Your task to perform on an android device: Search for vegetarian restaurants on Maps Image 0: 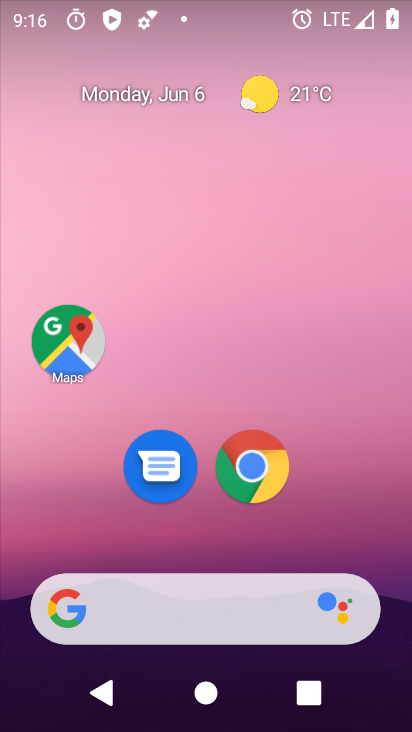
Step 0: click (260, 70)
Your task to perform on an android device: Search for vegetarian restaurants on Maps Image 1: 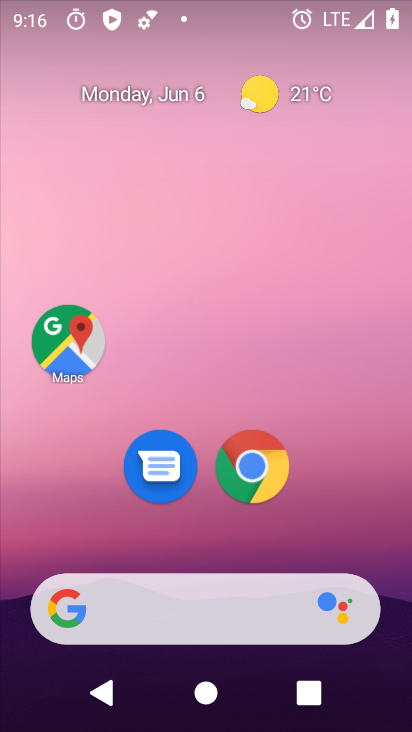
Step 1: drag from (209, 543) to (252, 11)
Your task to perform on an android device: Search for vegetarian restaurants on Maps Image 2: 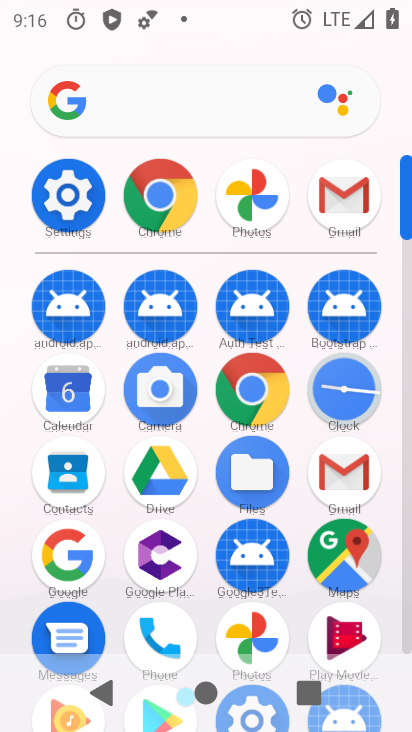
Step 2: click (343, 535)
Your task to perform on an android device: Search for vegetarian restaurants on Maps Image 3: 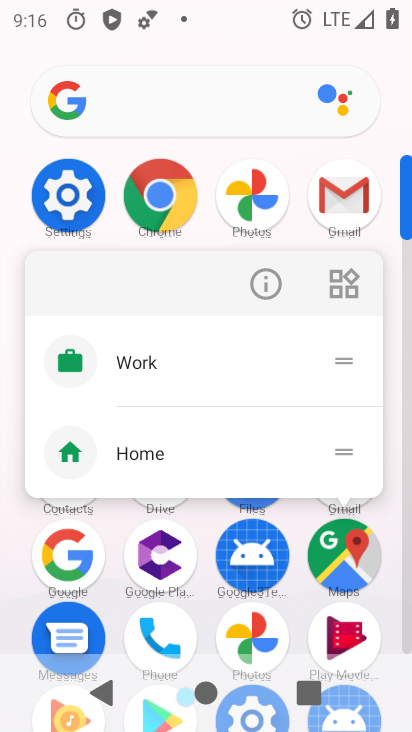
Step 3: click (255, 273)
Your task to perform on an android device: Search for vegetarian restaurants on Maps Image 4: 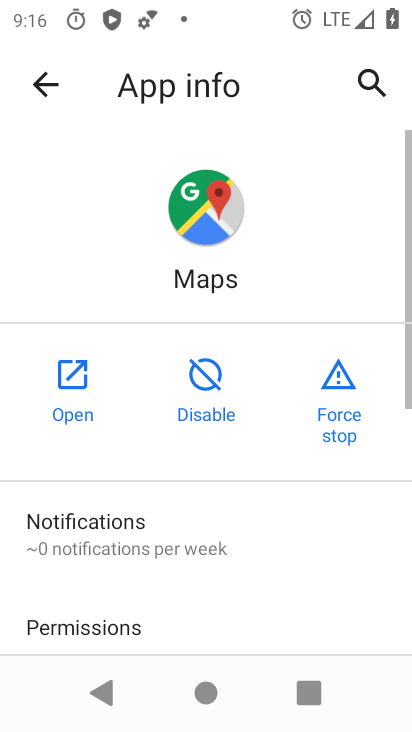
Step 4: drag from (162, 559) to (197, 89)
Your task to perform on an android device: Search for vegetarian restaurants on Maps Image 5: 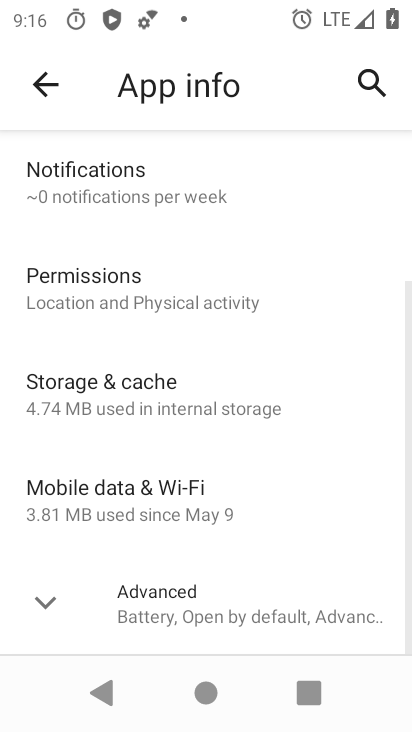
Step 5: drag from (195, 259) to (267, 721)
Your task to perform on an android device: Search for vegetarian restaurants on Maps Image 6: 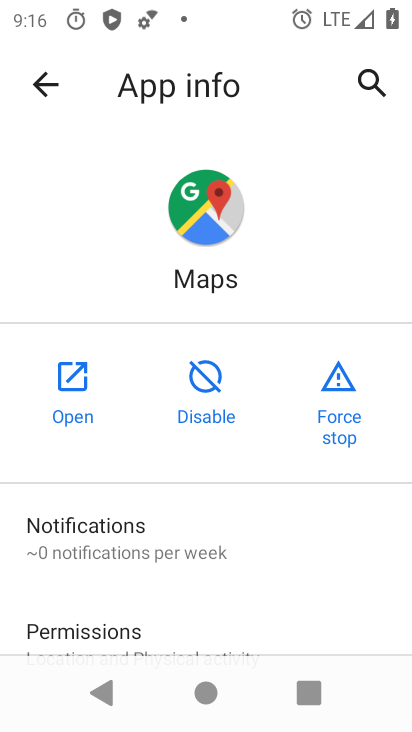
Step 6: click (78, 400)
Your task to perform on an android device: Search for vegetarian restaurants on Maps Image 7: 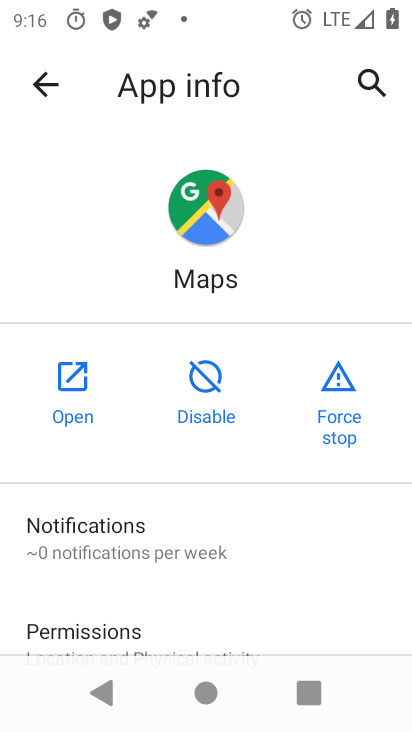
Step 7: click (77, 399)
Your task to perform on an android device: Search for vegetarian restaurants on Maps Image 8: 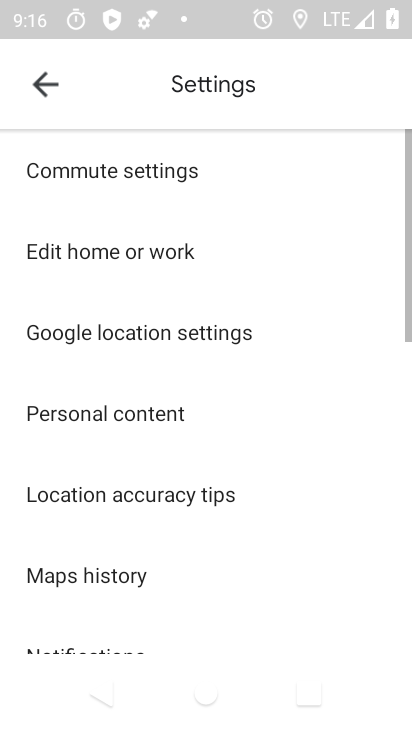
Step 8: drag from (204, 551) to (251, 151)
Your task to perform on an android device: Search for vegetarian restaurants on Maps Image 9: 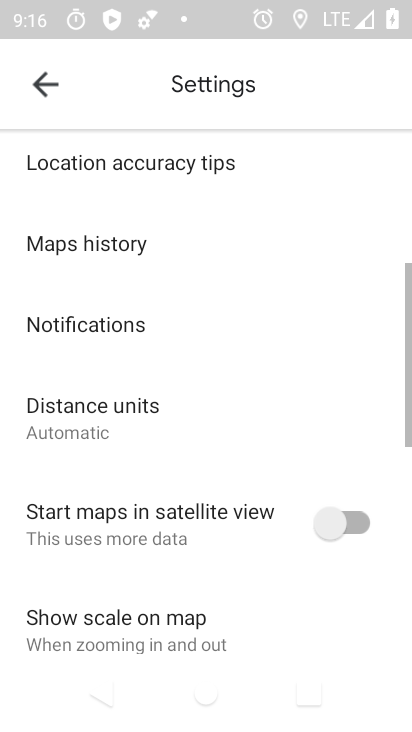
Step 9: drag from (242, 210) to (392, 731)
Your task to perform on an android device: Search for vegetarian restaurants on Maps Image 10: 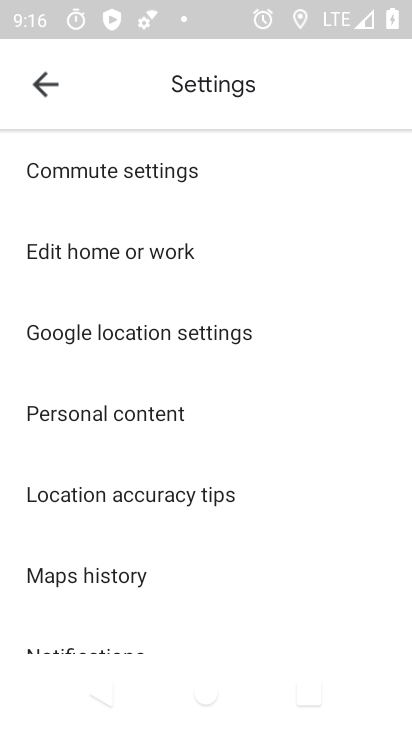
Step 10: drag from (273, 548) to (286, 190)
Your task to perform on an android device: Search for vegetarian restaurants on Maps Image 11: 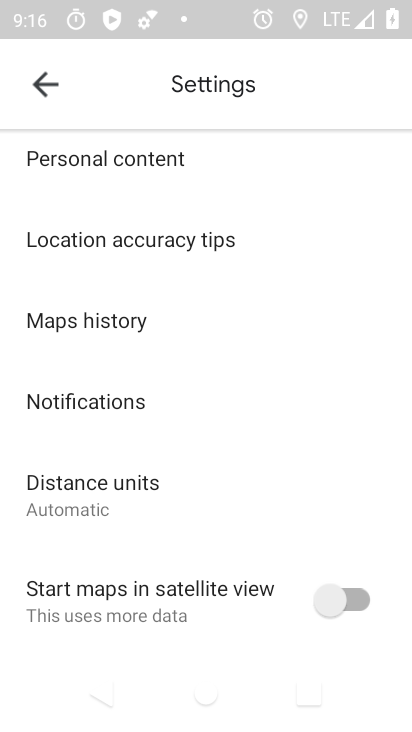
Step 11: click (42, 73)
Your task to perform on an android device: Search for vegetarian restaurants on Maps Image 12: 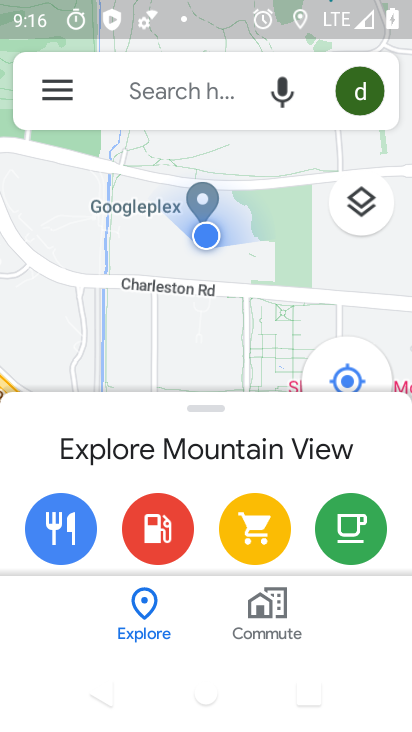
Step 12: click (118, 60)
Your task to perform on an android device: Search for vegetarian restaurants on Maps Image 13: 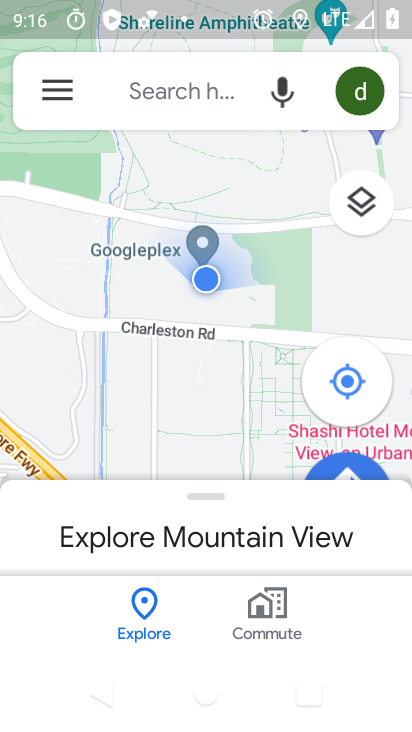
Step 13: click (132, 67)
Your task to perform on an android device: Search for vegetarian restaurants on Maps Image 14: 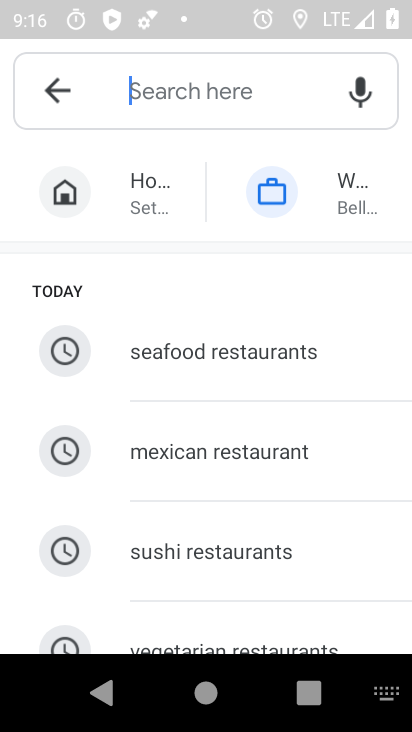
Step 14: drag from (216, 545) to (261, 69)
Your task to perform on an android device: Search for vegetarian restaurants on Maps Image 15: 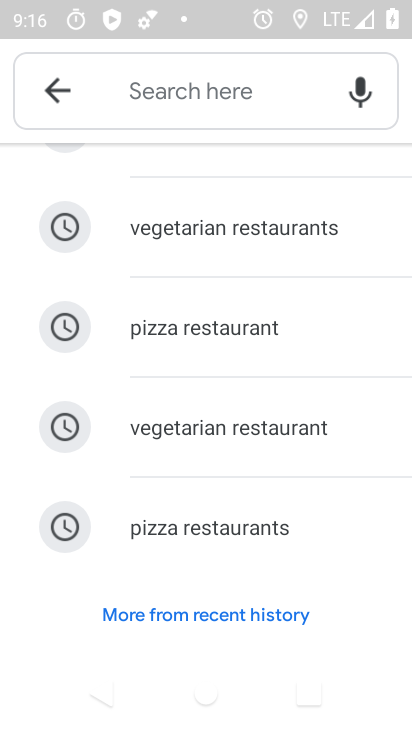
Step 15: click (181, 440)
Your task to perform on an android device: Search for vegetarian restaurants on Maps Image 16: 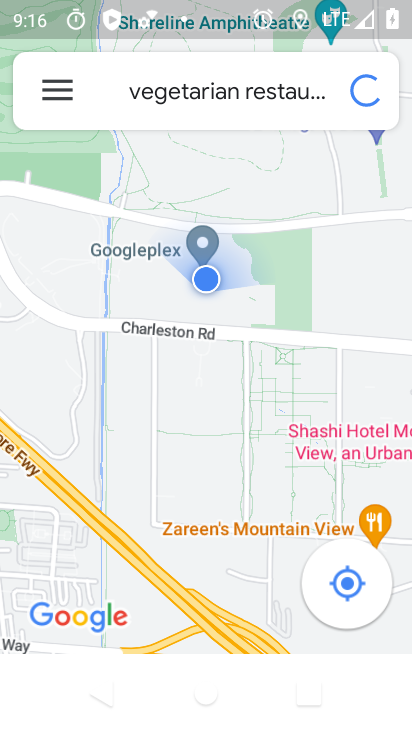
Step 16: task complete